Your task to perform on an android device: change notifications settings Image 0: 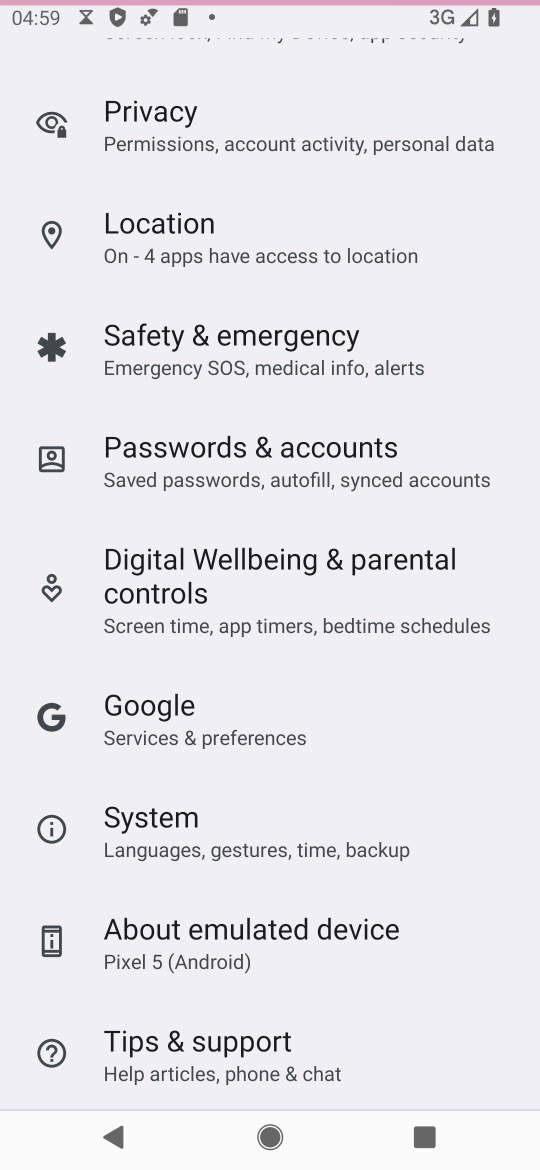
Step 0: press home button
Your task to perform on an android device: change notifications settings Image 1: 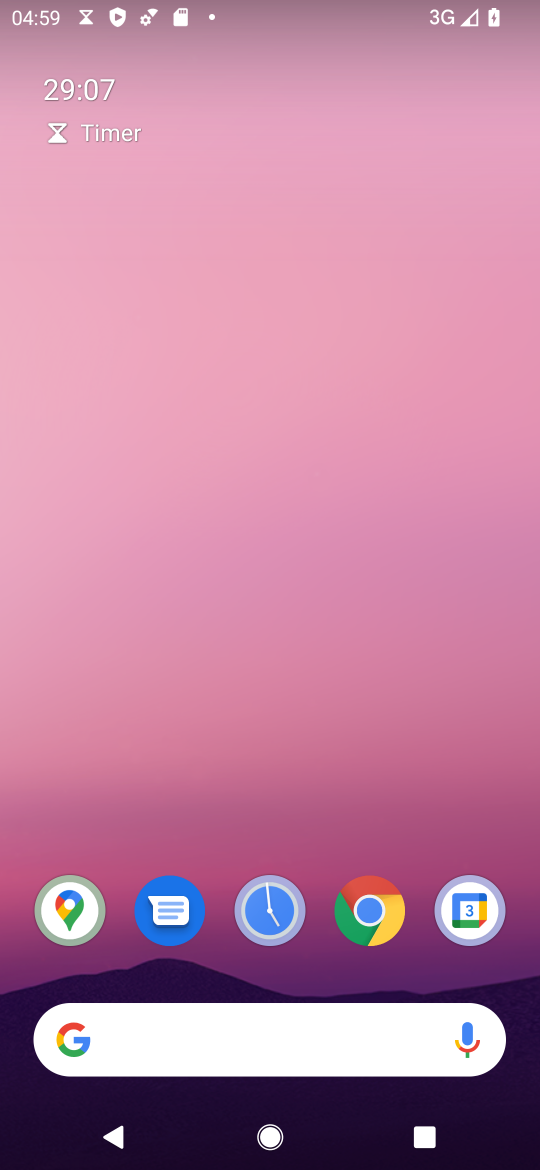
Step 1: drag from (321, 853) to (344, 23)
Your task to perform on an android device: change notifications settings Image 2: 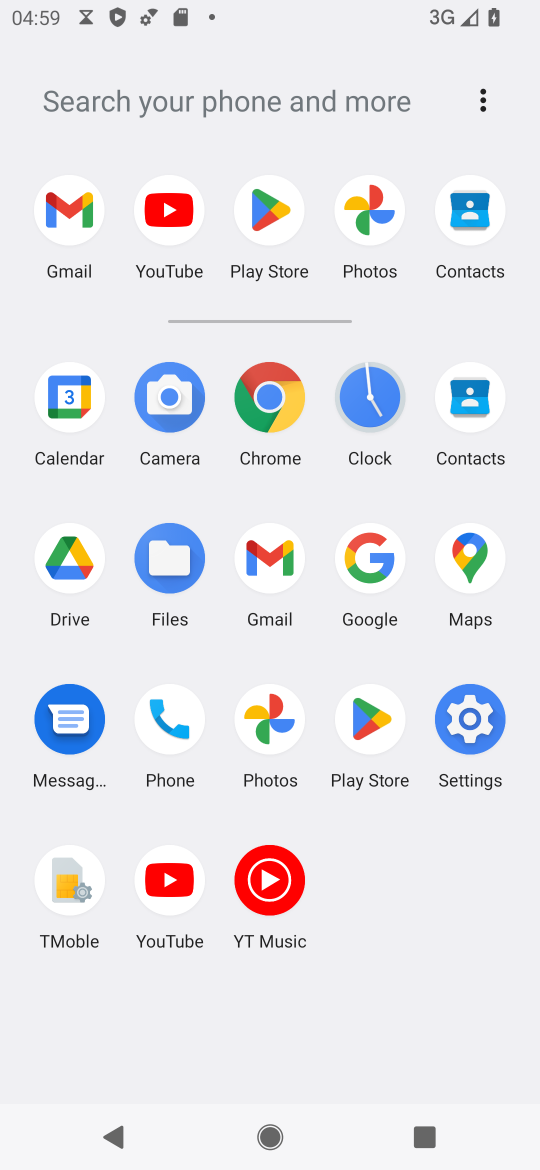
Step 2: click (461, 706)
Your task to perform on an android device: change notifications settings Image 3: 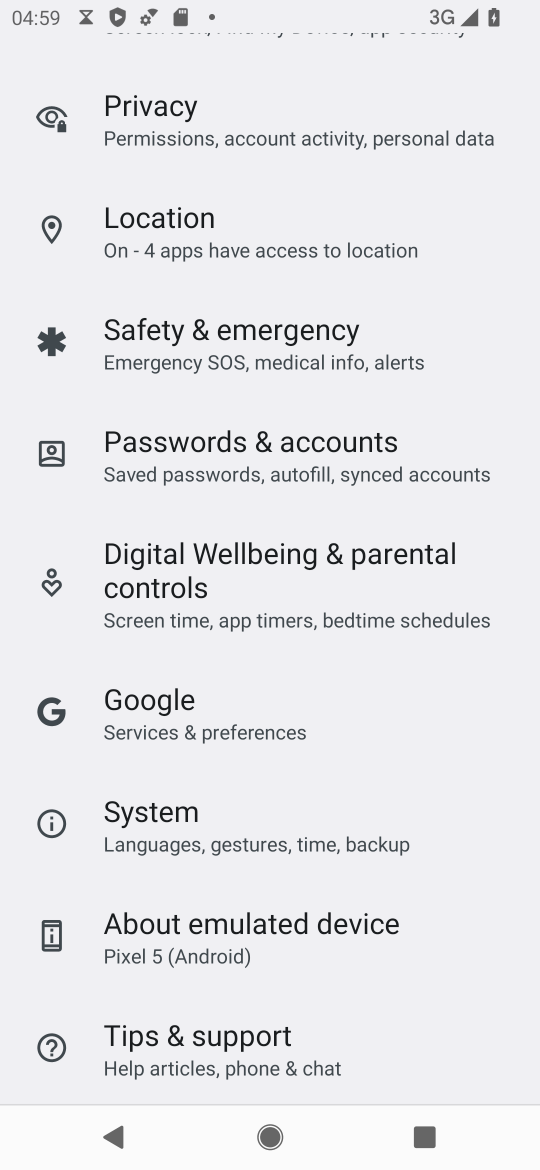
Step 3: drag from (278, 167) to (304, 904)
Your task to perform on an android device: change notifications settings Image 4: 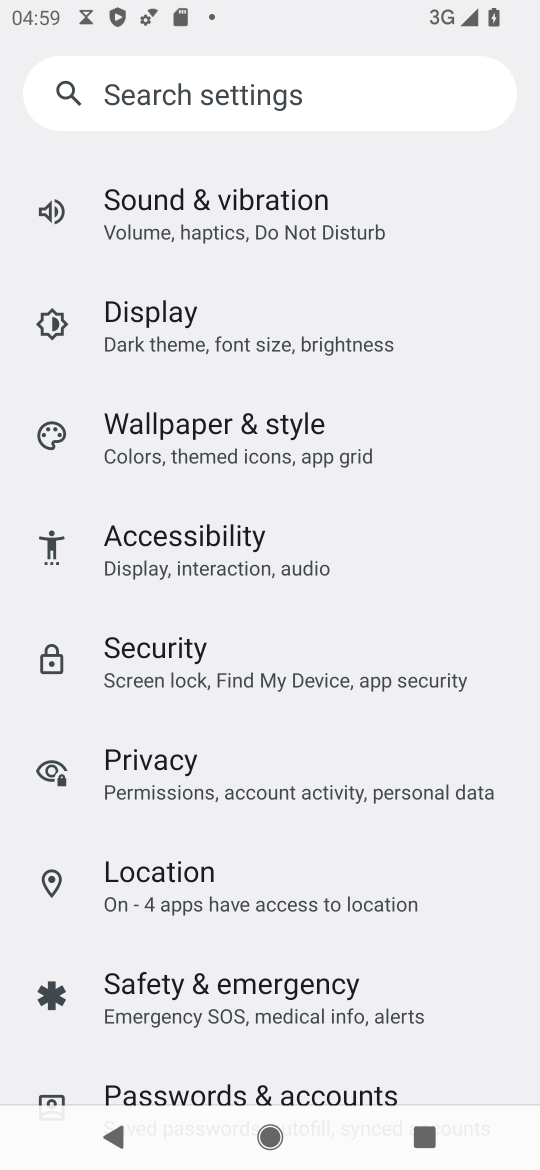
Step 4: drag from (242, 272) to (283, 797)
Your task to perform on an android device: change notifications settings Image 5: 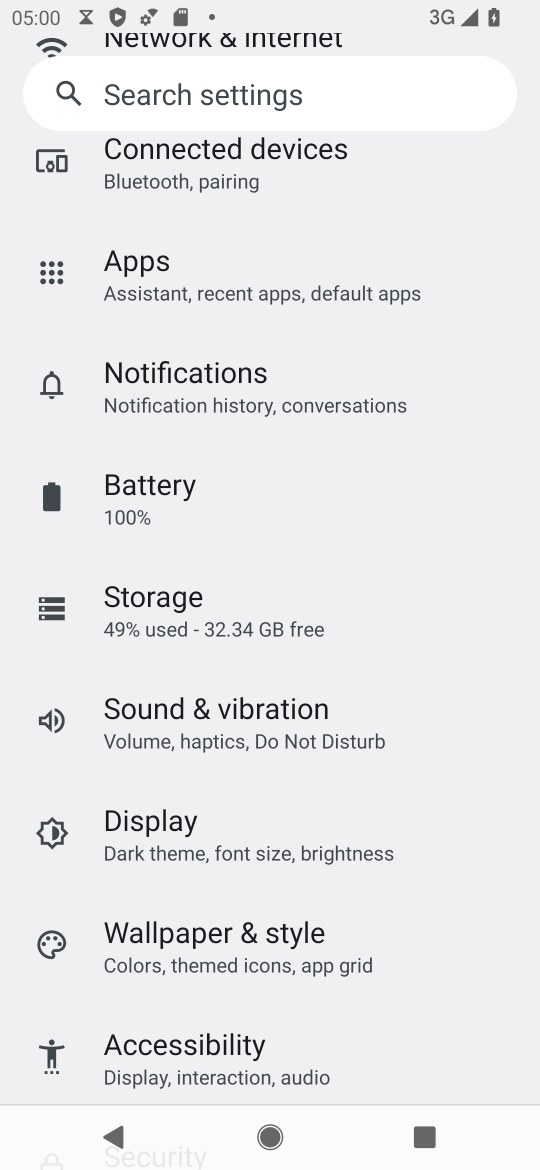
Step 5: click (287, 372)
Your task to perform on an android device: change notifications settings Image 6: 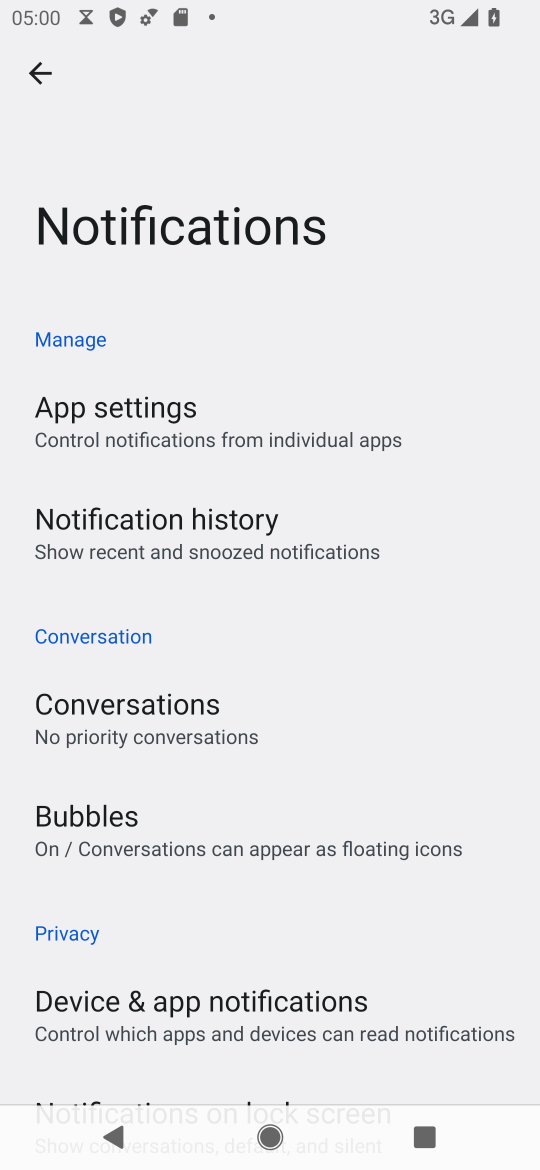
Step 6: task complete